Your task to perform on an android device: Search for the best selling TV on Best Buy. Image 0: 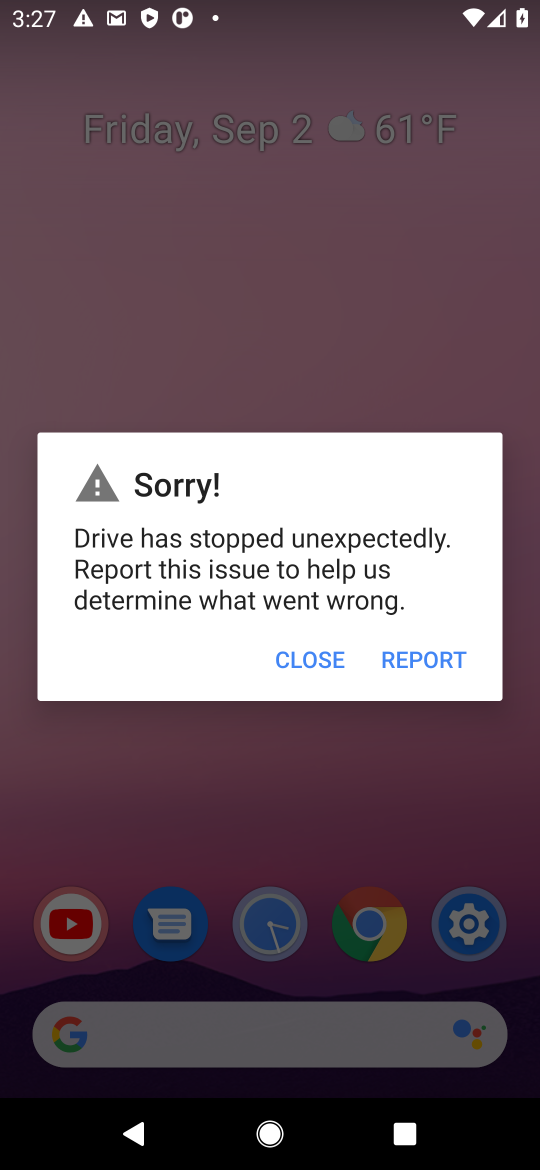
Step 0: press home button
Your task to perform on an android device: Search for the best selling TV on Best Buy. Image 1: 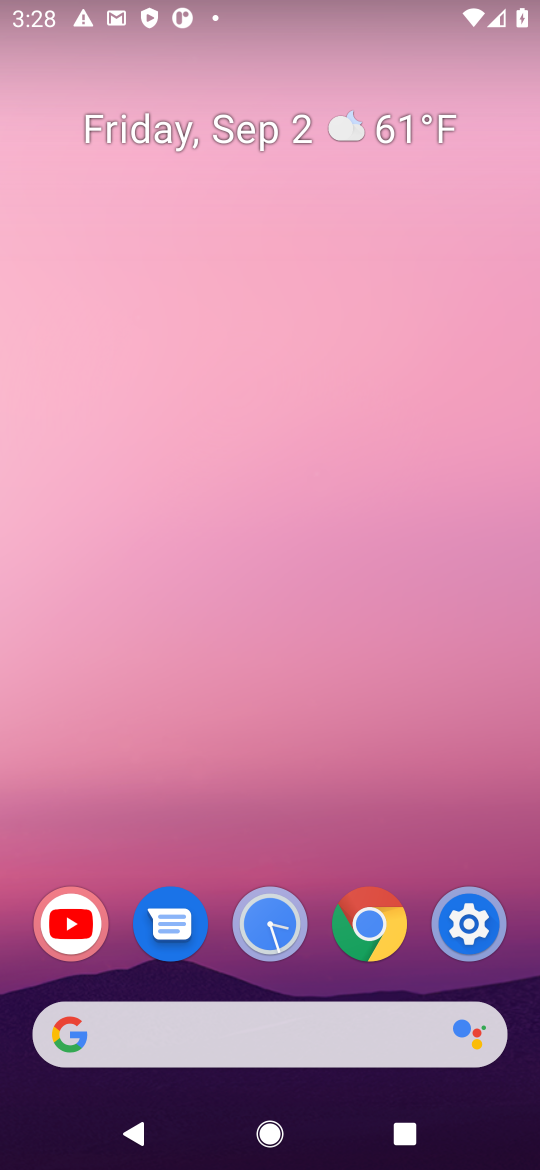
Step 1: click (380, 1022)
Your task to perform on an android device: Search for the best selling TV on Best Buy. Image 2: 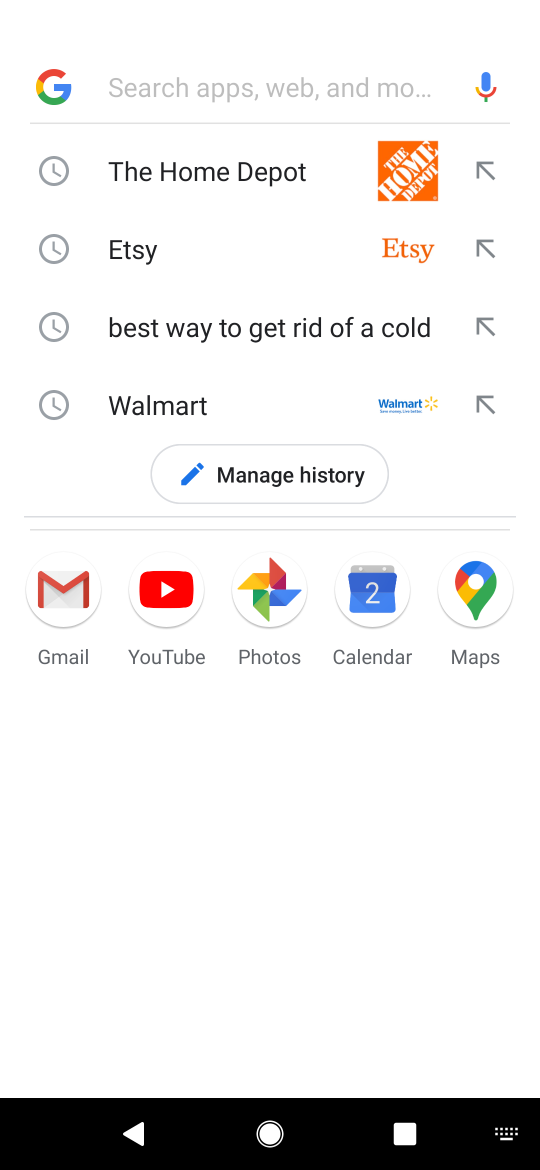
Step 2: press enter
Your task to perform on an android device: Search for the best selling TV on Best Buy. Image 3: 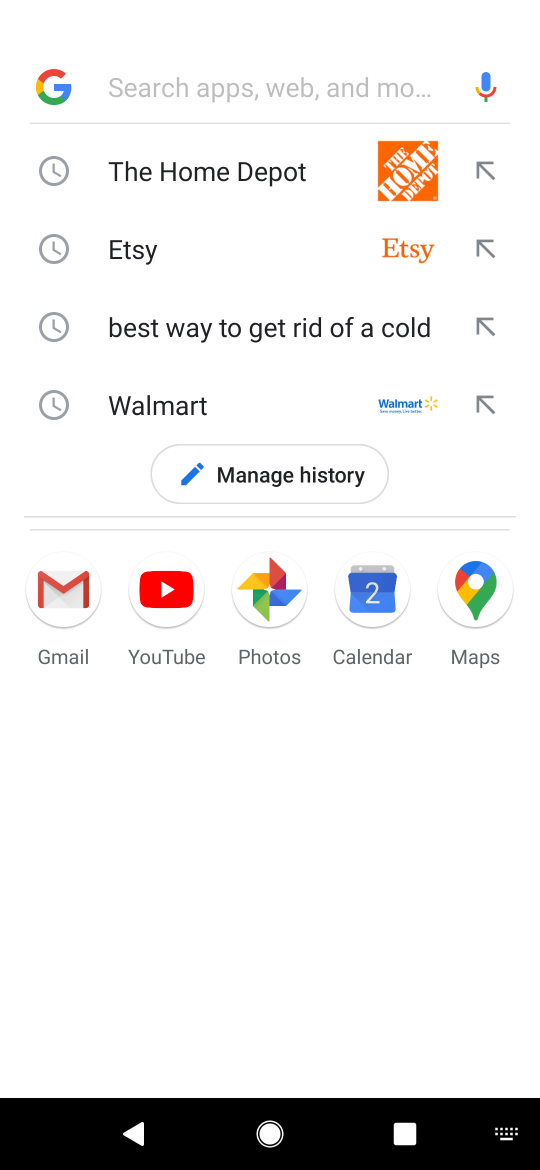
Step 3: type "best buy"
Your task to perform on an android device: Search for the best selling TV on Best Buy. Image 4: 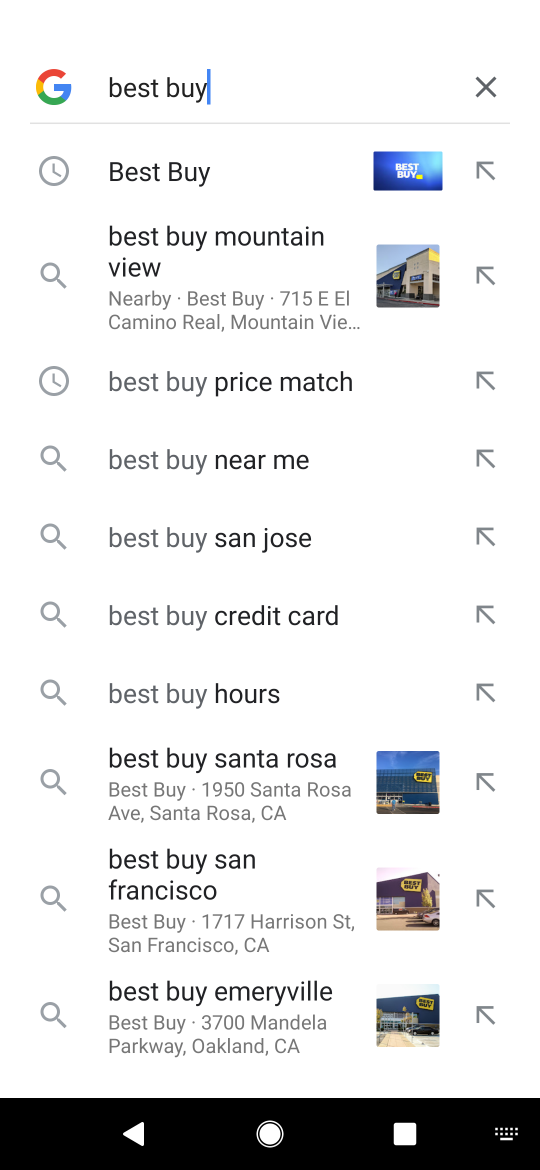
Step 4: click (186, 158)
Your task to perform on an android device: Search for the best selling TV on Best Buy. Image 5: 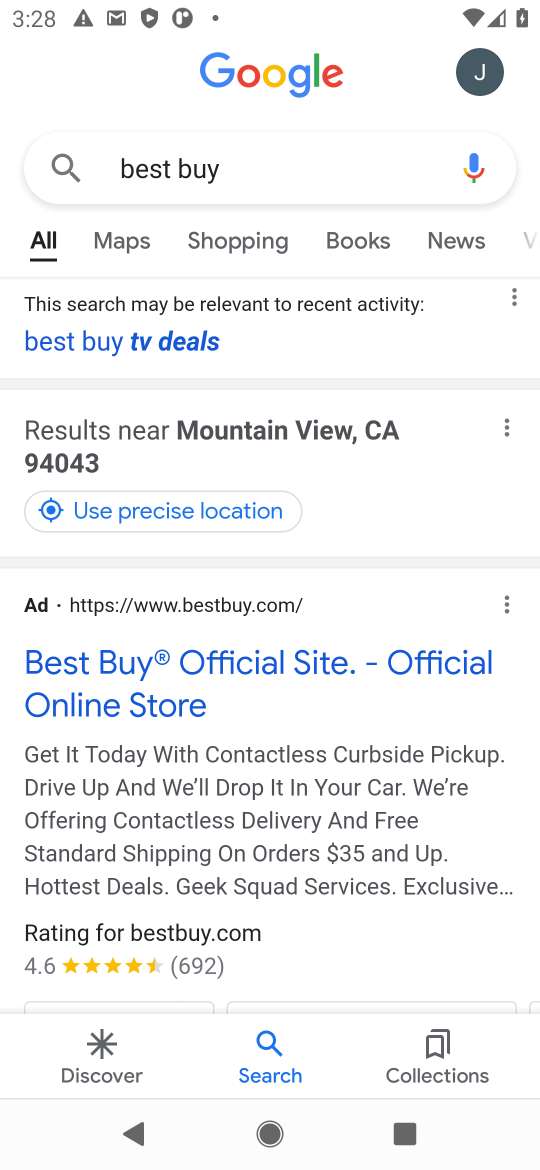
Step 5: click (272, 653)
Your task to perform on an android device: Search for the best selling TV on Best Buy. Image 6: 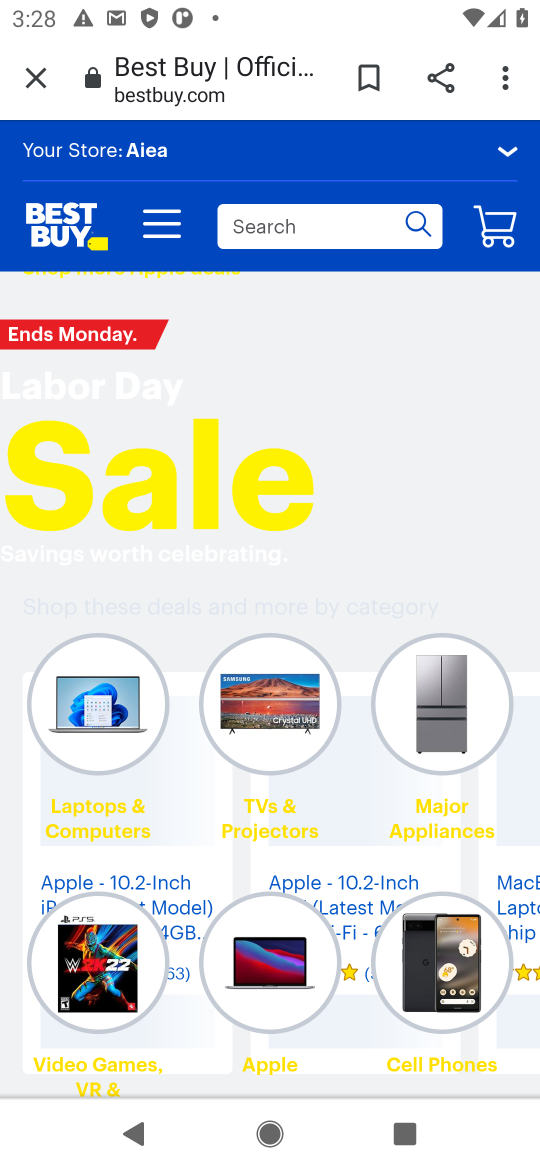
Step 6: click (324, 217)
Your task to perform on an android device: Search for the best selling TV on Best Buy. Image 7: 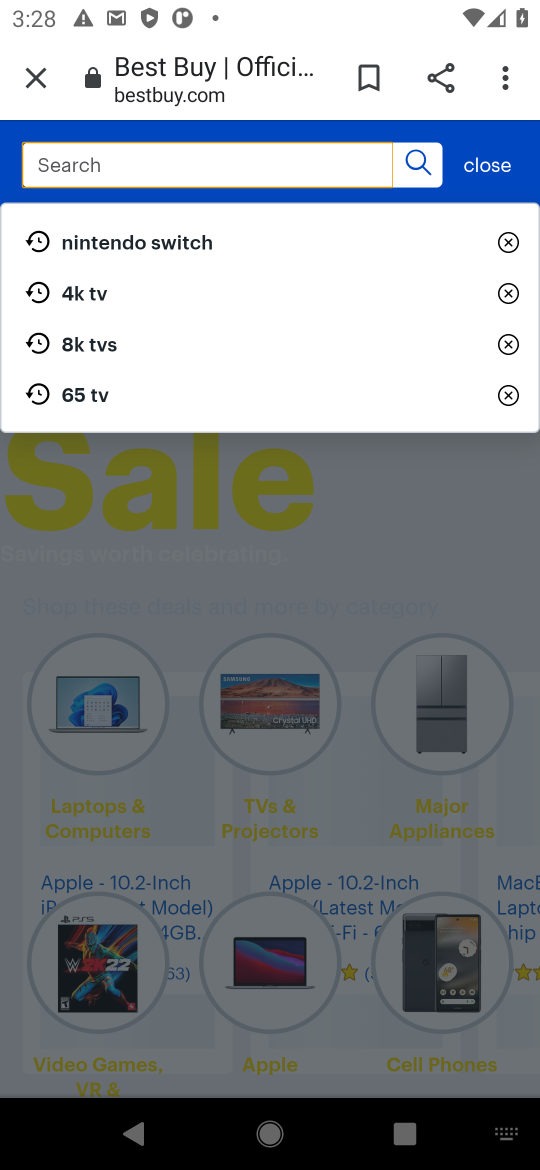
Step 7: type "best selling tv"
Your task to perform on an android device: Search for the best selling TV on Best Buy. Image 8: 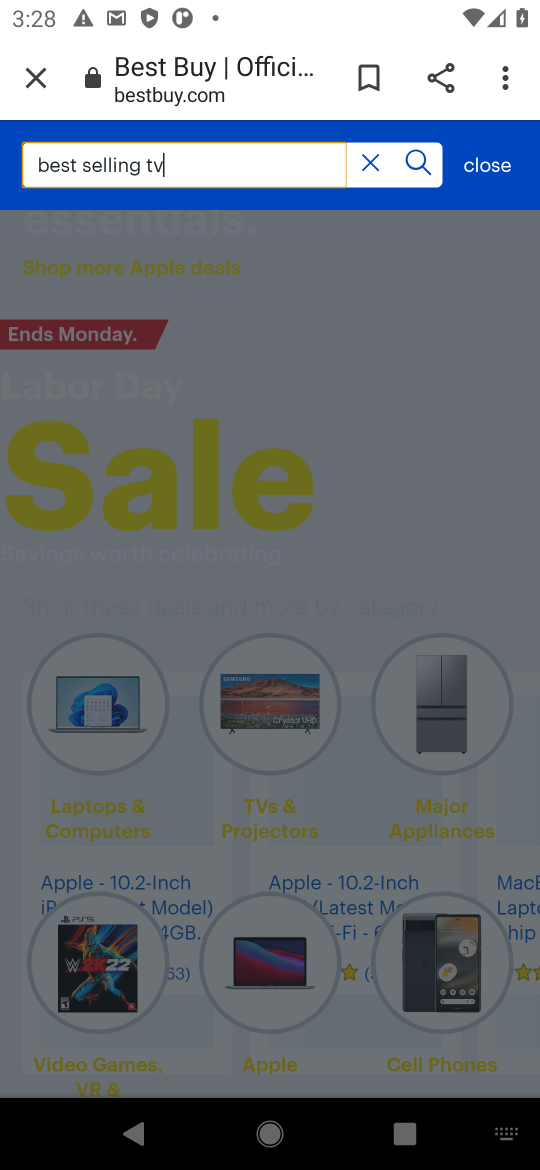
Step 8: click (421, 160)
Your task to perform on an android device: Search for the best selling TV on Best Buy. Image 9: 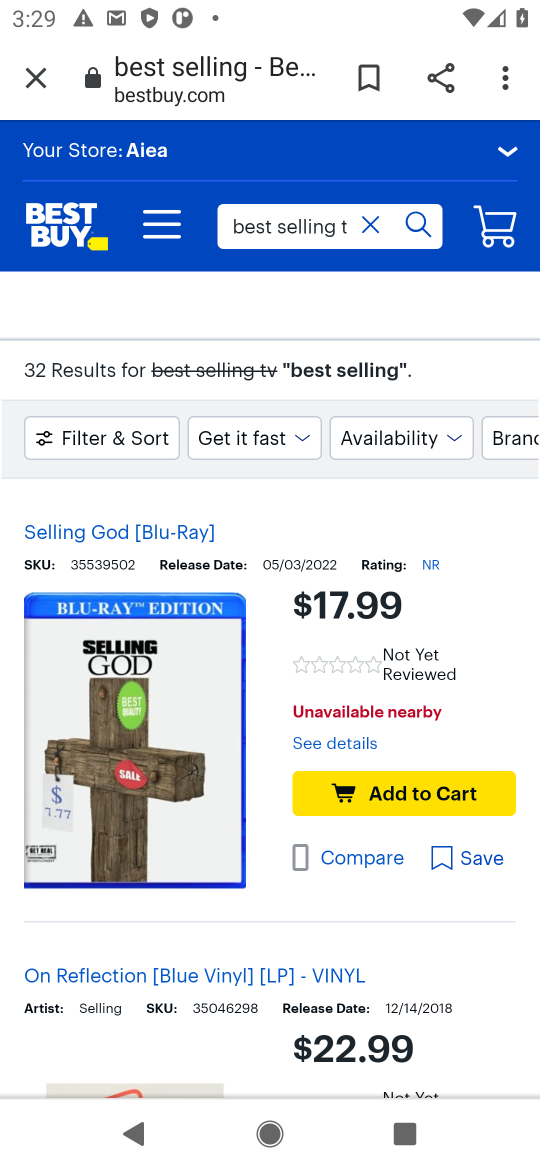
Step 9: task complete